Your task to perform on an android device: change your default location settings in chrome Image 0: 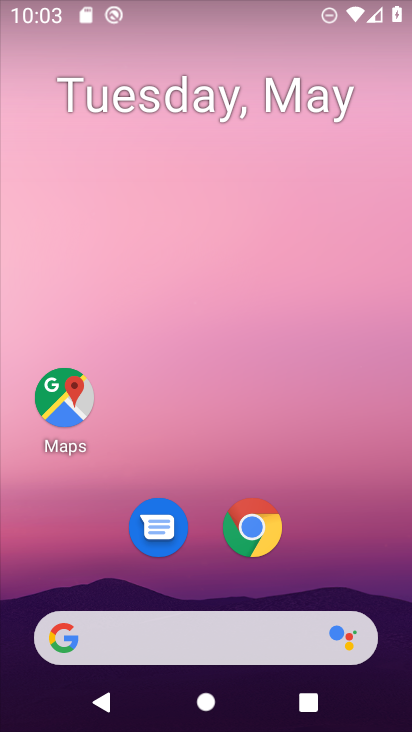
Step 0: click (254, 524)
Your task to perform on an android device: change your default location settings in chrome Image 1: 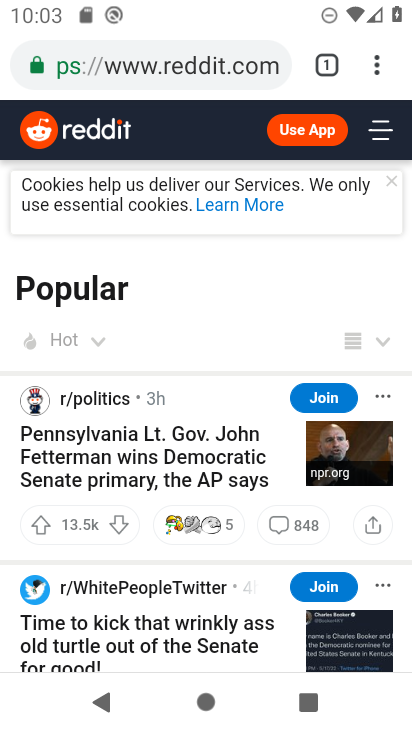
Step 1: click (375, 67)
Your task to perform on an android device: change your default location settings in chrome Image 2: 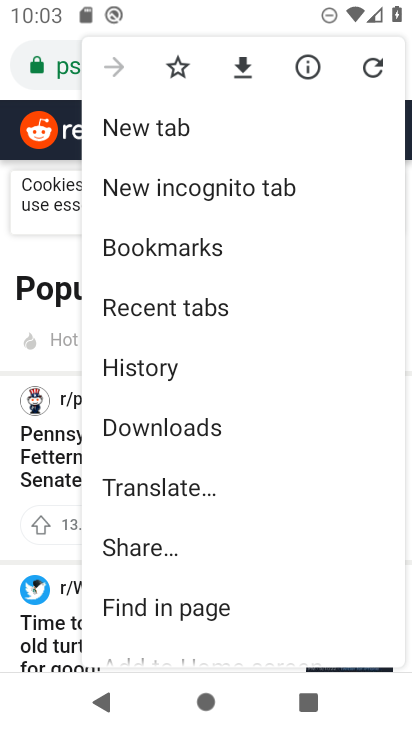
Step 2: drag from (188, 459) to (227, 375)
Your task to perform on an android device: change your default location settings in chrome Image 3: 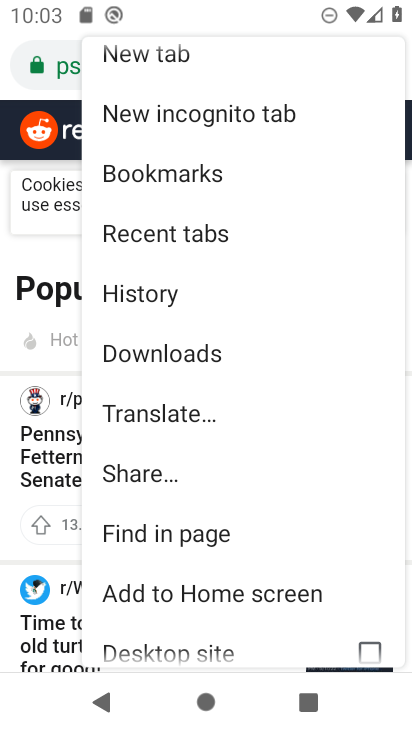
Step 3: drag from (173, 557) to (204, 494)
Your task to perform on an android device: change your default location settings in chrome Image 4: 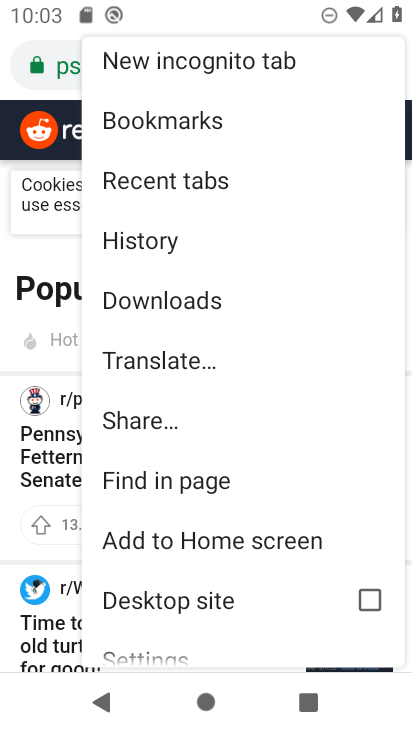
Step 4: drag from (159, 566) to (219, 474)
Your task to perform on an android device: change your default location settings in chrome Image 5: 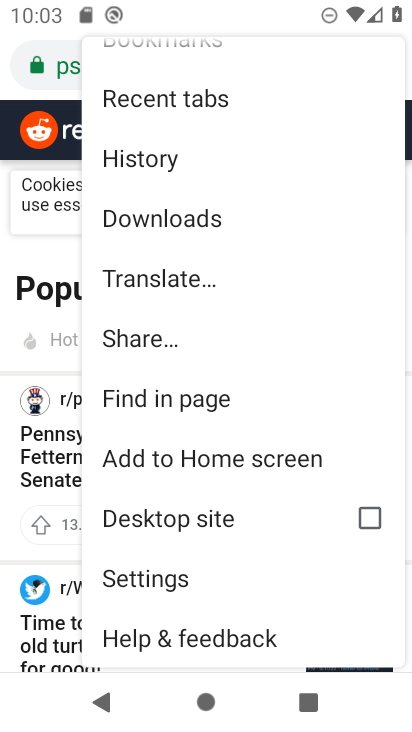
Step 5: click (157, 577)
Your task to perform on an android device: change your default location settings in chrome Image 6: 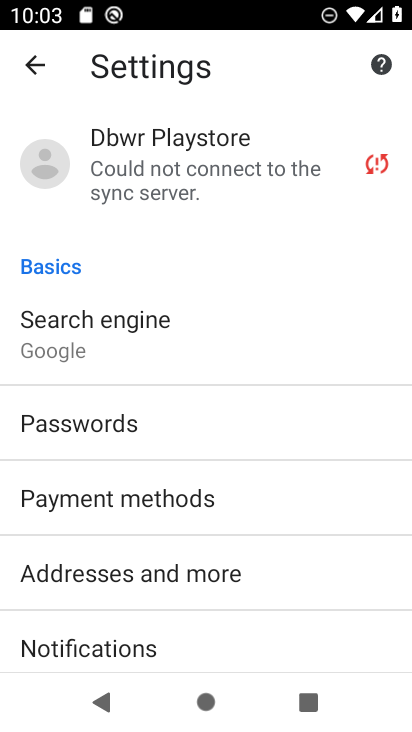
Step 6: drag from (124, 534) to (220, 426)
Your task to perform on an android device: change your default location settings in chrome Image 7: 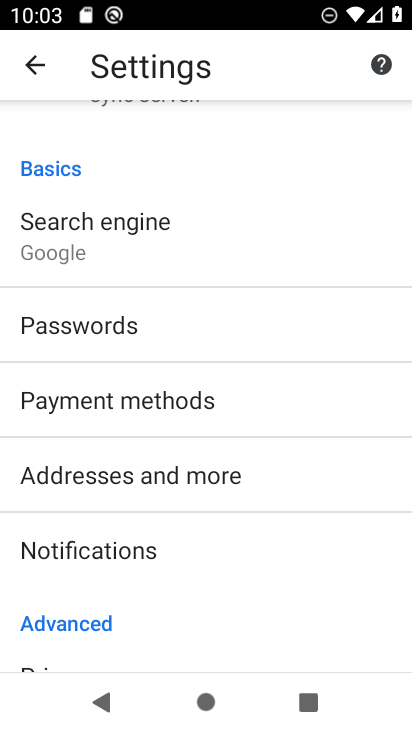
Step 7: drag from (95, 570) to (186, 450)
Your task to perform on an android device: change your default location settings in chrome Image 8: 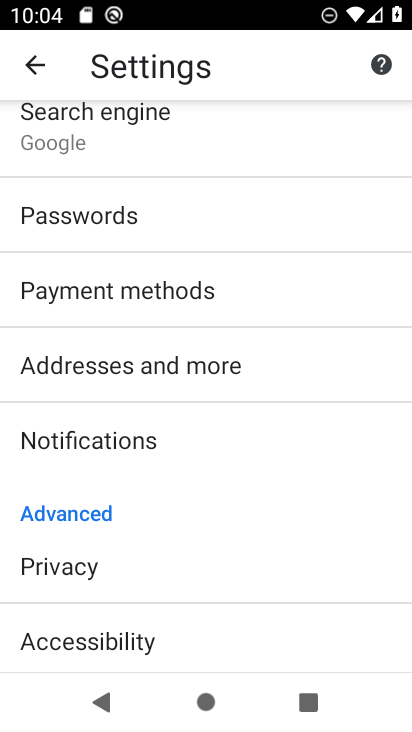
Step 8: drag from (120, 553) to (175, 468)
Your task to perform on an android device: change your default location settings in chrome Image 9: 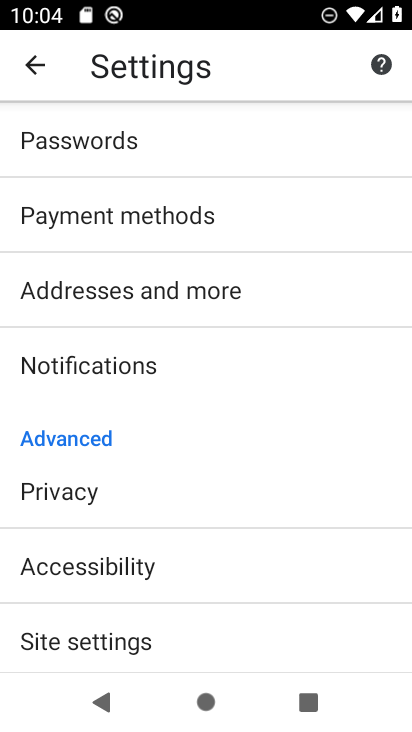
Step 9: drag from (102, 581) to (172, 495)
Your task to perform on an android device: change your default location settings in chrome Image 10: 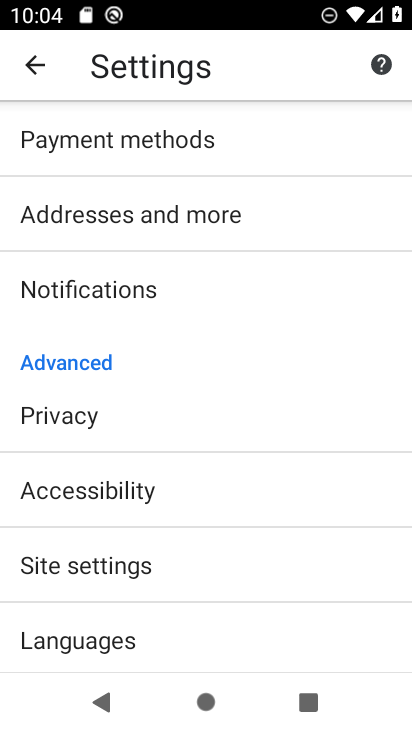
Step 10: drag from (104, 588) to (171, 482)
Your task to perform on an android device: change your default location settings in chrome Image 11: 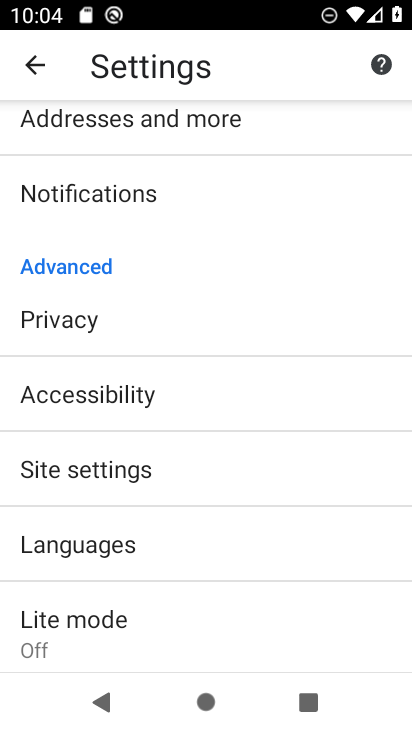
Step 11: click (97, 462)
Your task to perform on an android device: change your default location settings in chrome Image 12: 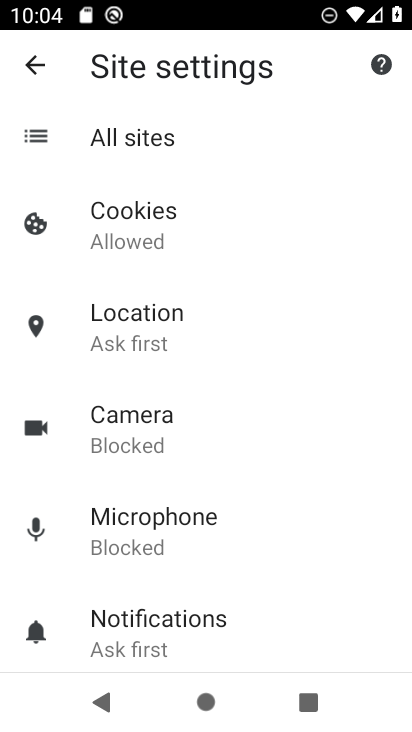
Step 12: drag from (168, 475) to (191, 417)
Your task to perform on an android device: change your default location settings in chrome Image 13: 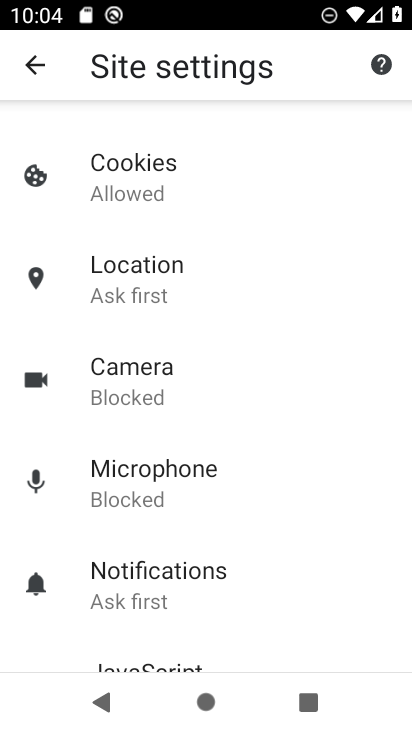
Step 13: click (142, 275)
Your task to perform on an android device: change your default location settings in chrome Image 14: 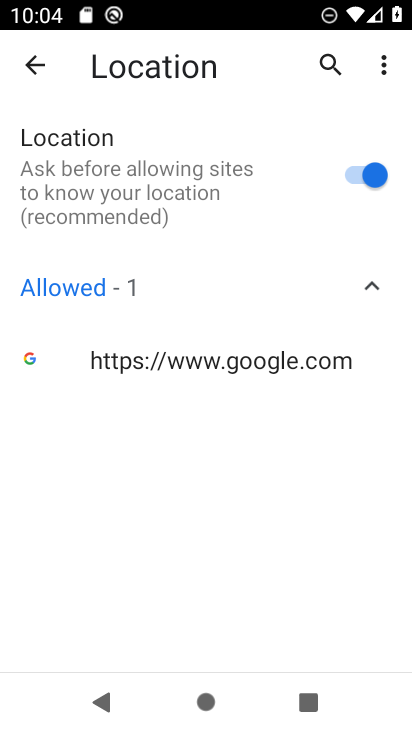
Step 14: click (367, 172)
Your task to perform on an android device: change your default location settings in chrome Image 15: 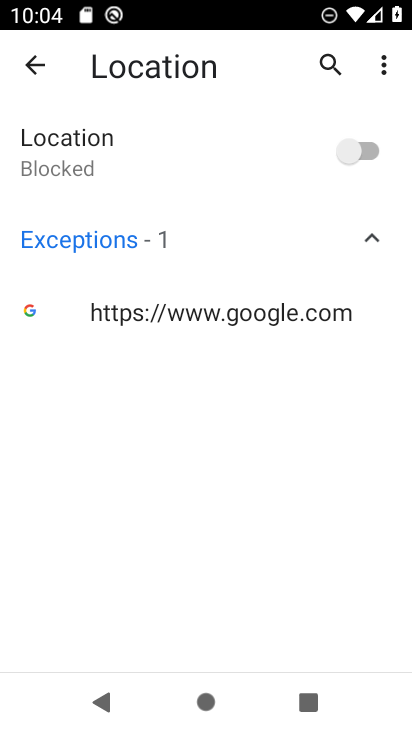
Step 15: task complete